Your task to perform on an android device: Show me popular videos on Youtube Image 0: 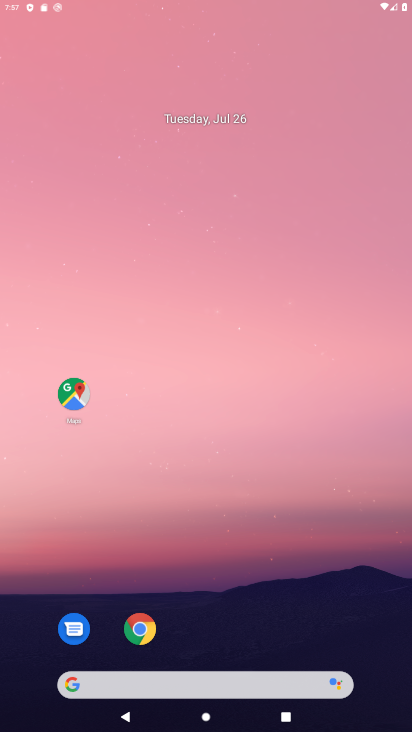
Step 0: press home button
Your task to perform on an android device: Show me popular videos on Youtube Image 1: 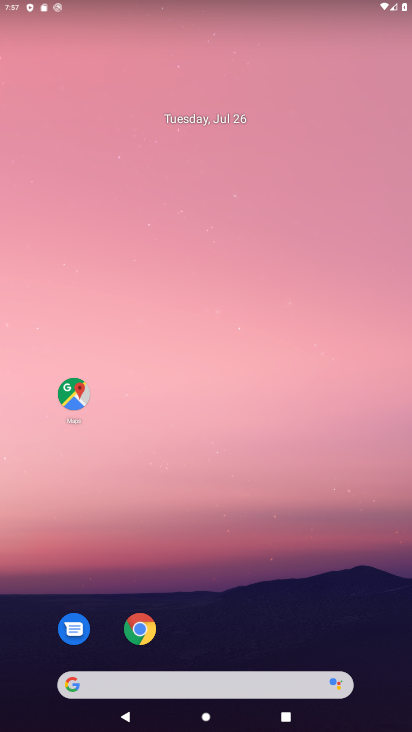
Step 1: drag from (216, 652) to (235, 42)
Your task to perform on an android device: Show me popular videos on Youtube Image 2: 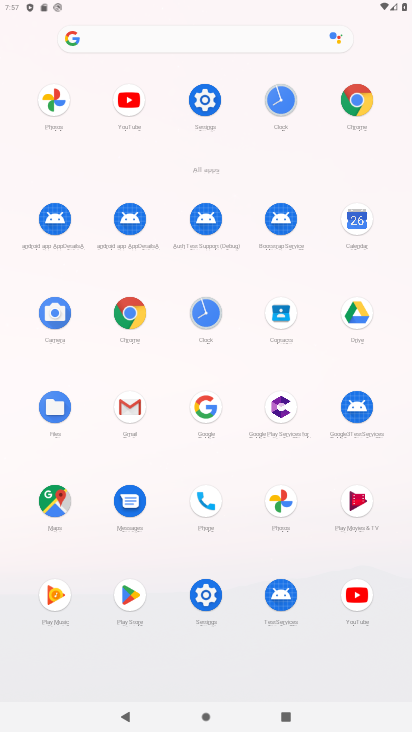
Step 2: click (355, 590)
Your task to perform on an android device: Show me popular videos on Youtube Image 3: 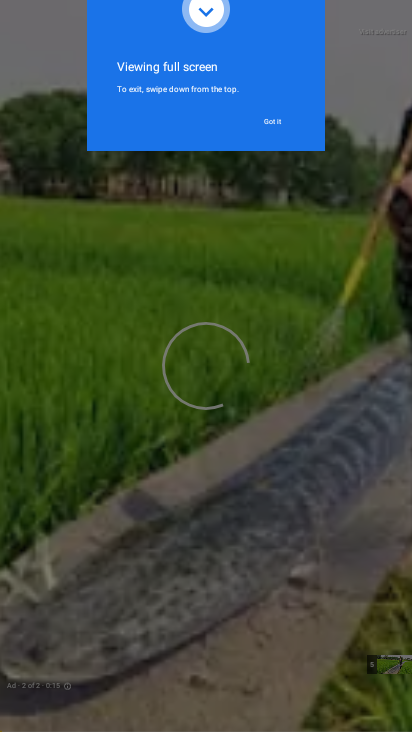
Step 3: click (269, 118)
Your task to perform on an android device: Show me popular videos on Youtube Image 4: 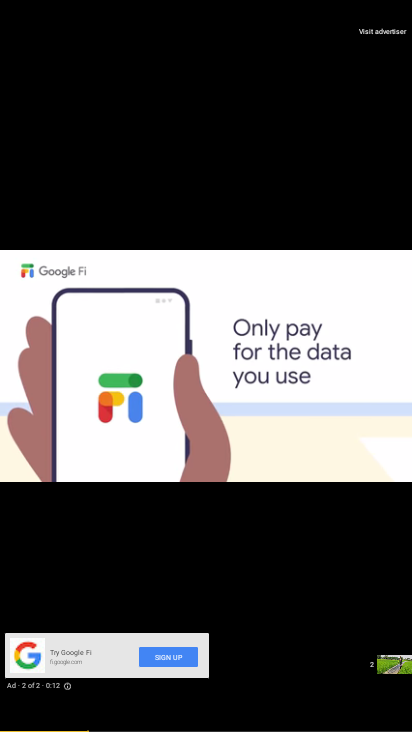
Step 4: press back button
Your task to perform on an android device: Show me popular videos on Youtube Image 5: 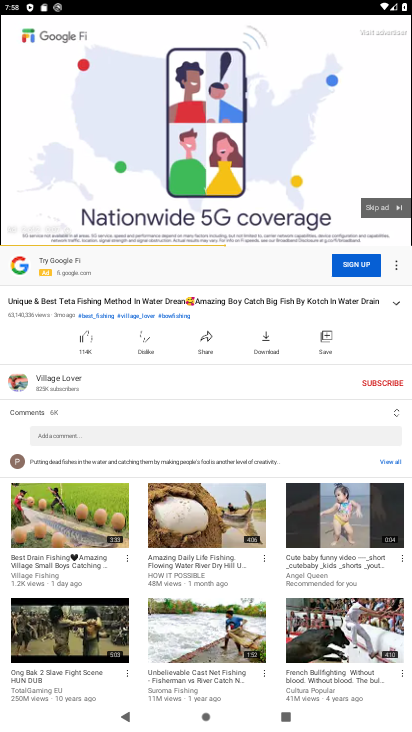
Step 5: press back button
Your task to perform on an android device: Show me popular videos on Youtube Image 6: 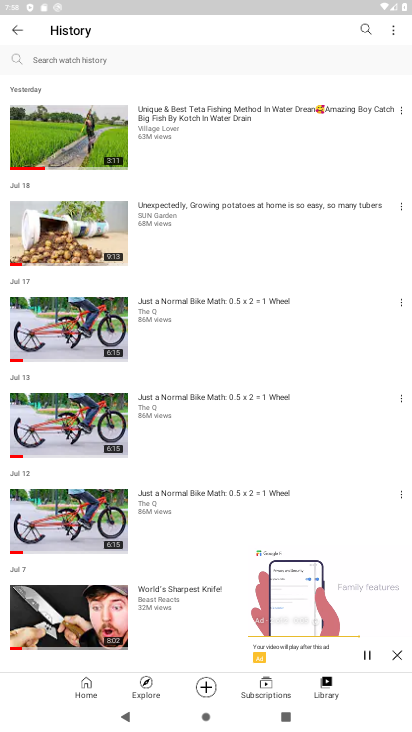
Step 6: click (392, 656)
Your task to perform on an android device: Show me popular videos on Youtube Image 7: 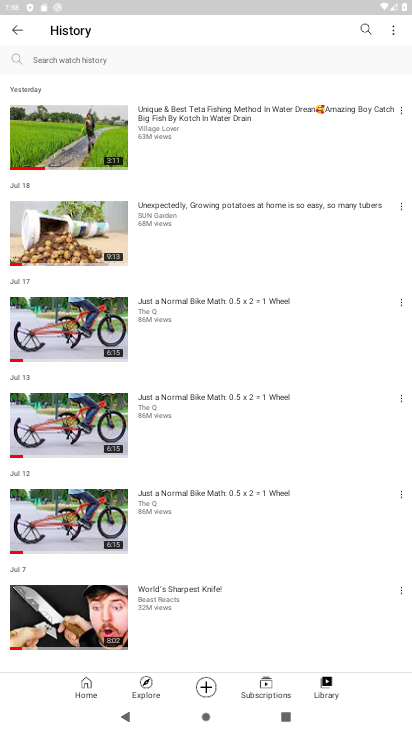
Step 7: click (143, 682)
Your task to perform on an android device: Show me popular videos on Youtube Image 8: 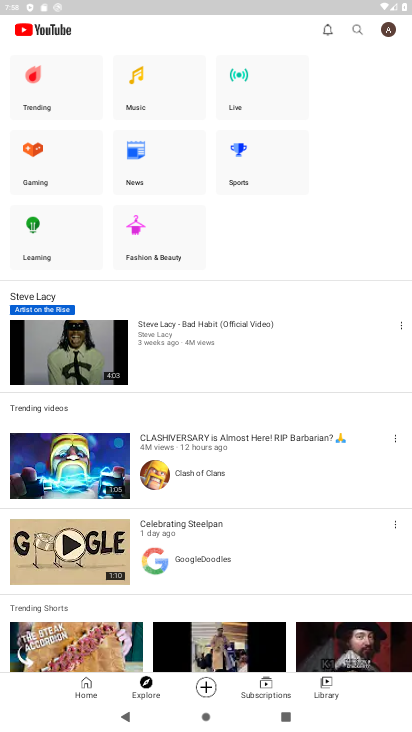
Step 8: click (47, 86)
Your task to perform on an android device: Show me popular videos on Youtube Image 9: 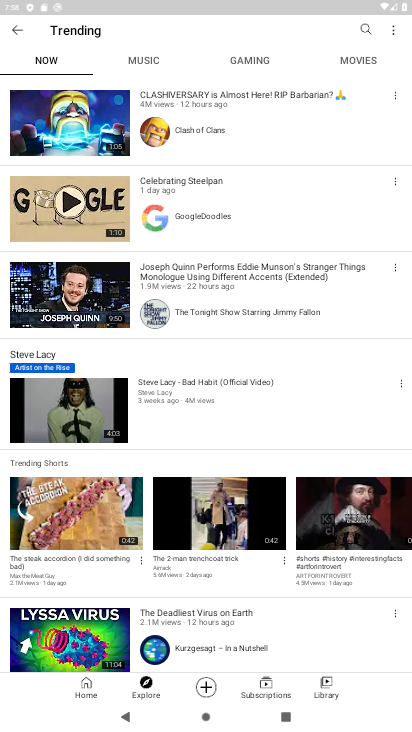
Step 9: task complete